Your task to perform on an android device: Open Chrome and go to settings Image 0: 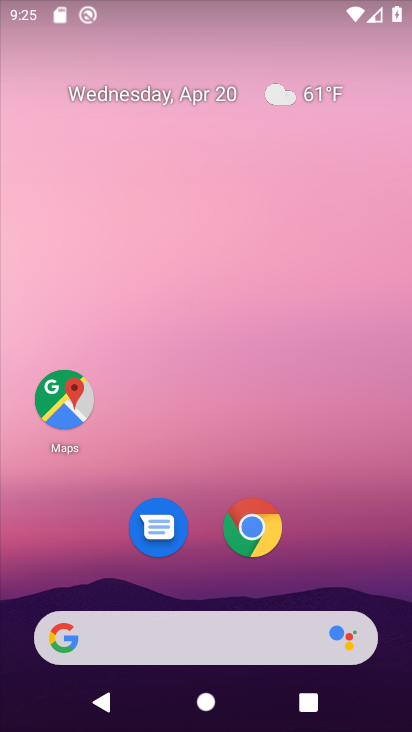
Step 0: drag from (224, 579) to (334, 47)
Your task to perform on an android device: Open Chrome and go to settings Image 1: 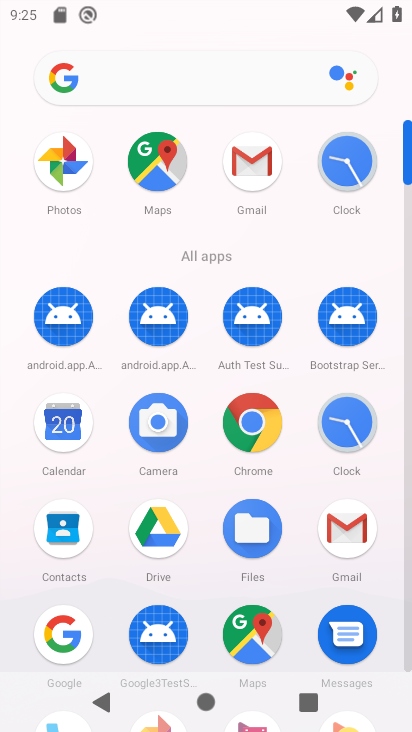
Step 1: click (235, 422)
Your task to perform on an android device: Open Chrome and go to settings Image 2: 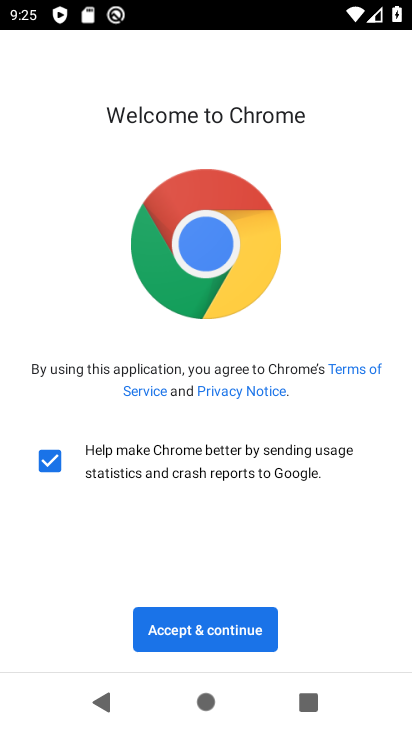
Step 2: click (235, 625)
Your task to perform on an android device: Open Chrome and go to settings Image 3: 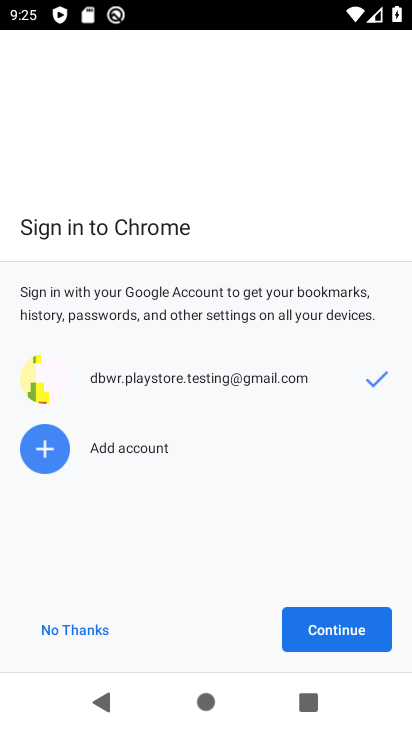
Step 3: click (311, 628)
Your task to perform on an android device: Open Chrome and go to settings Image 4: 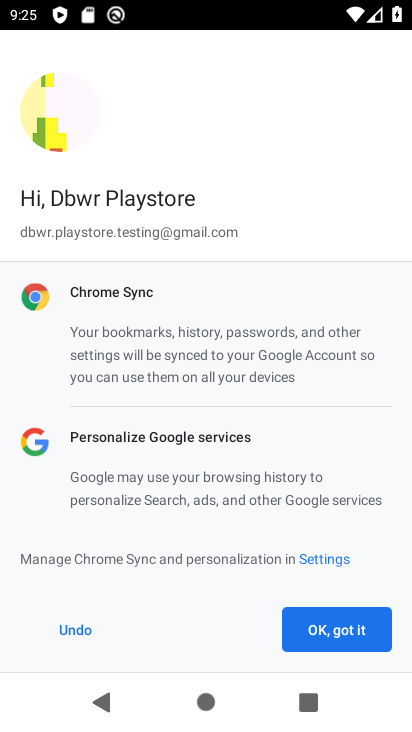
Step 4: click (339, 636)
Your task to perform on an android device: Open Chrome and go to settings Image 5: 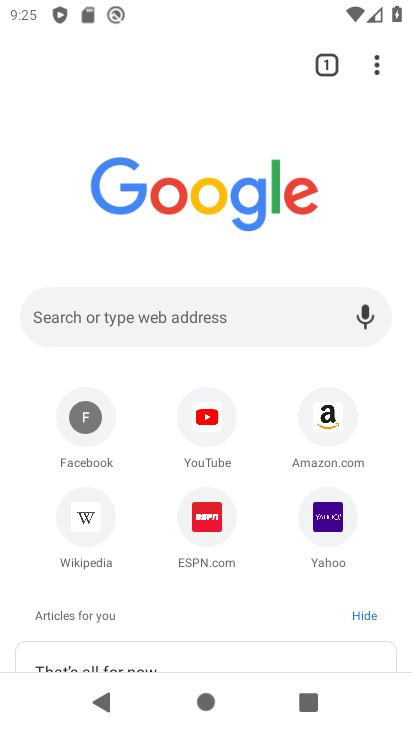
Step 5: click (382, 64)
Your task to perform on an android device: Open Chrome and go to settings Image 6: 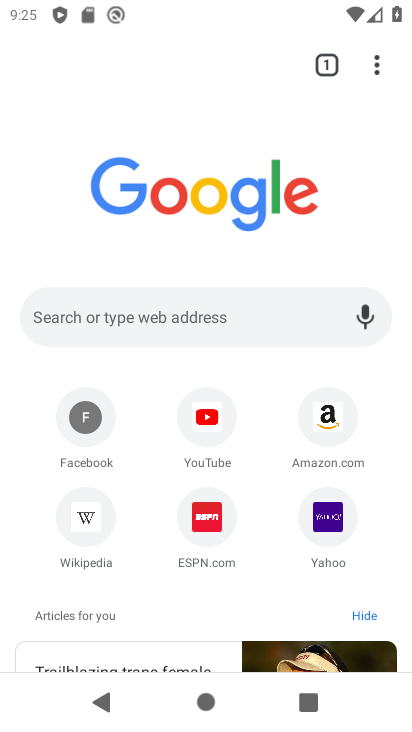
Step 6: click (376, 72)
Your task to perform on an android device: Open Chrome and go to settings Image 7: 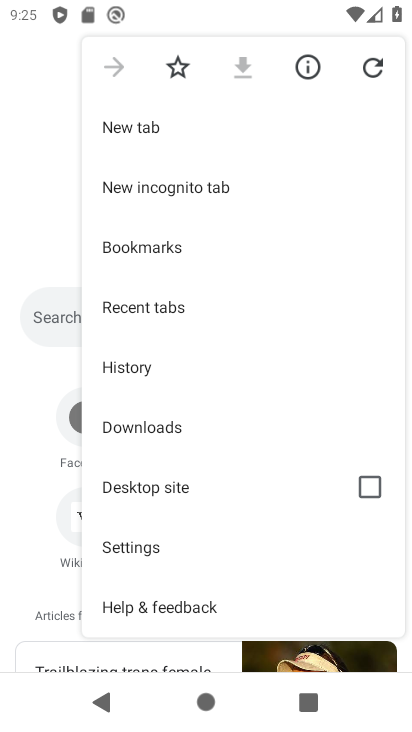
Step 7: click (130, 549)
Your task to perform on an android device: Open Chrome and go to settings Image 8: 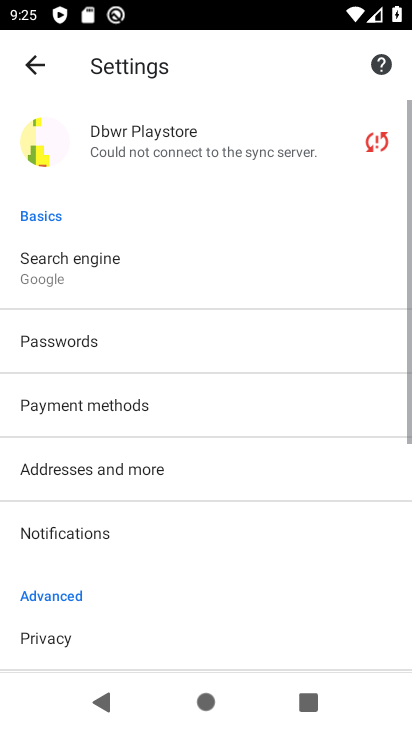
Step 8: task complete